Your task to perform on an android device: check out phone information Image 0: 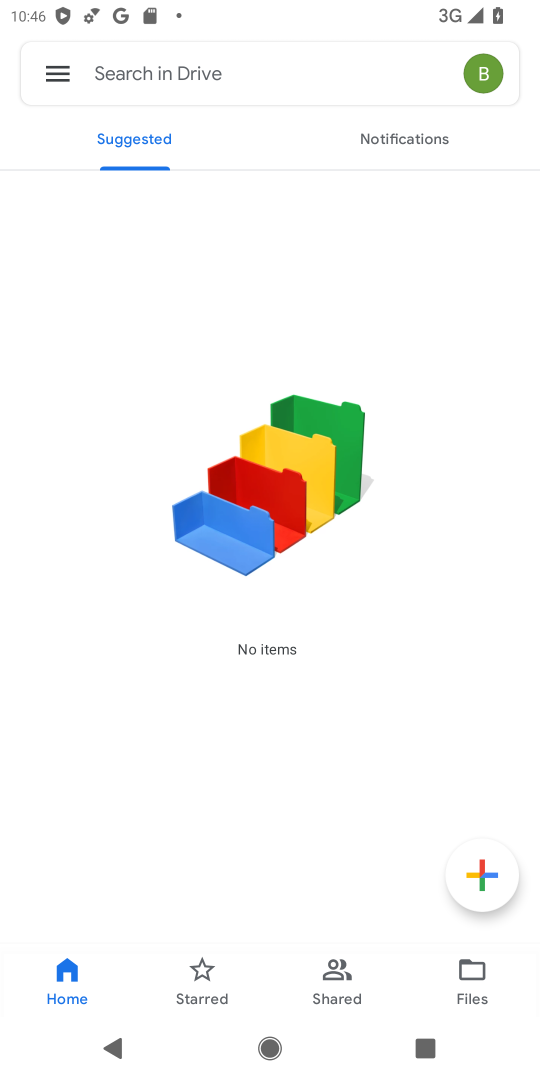
Step 0: press home button
Your task to perform on an android device: check out phone information Image 1: 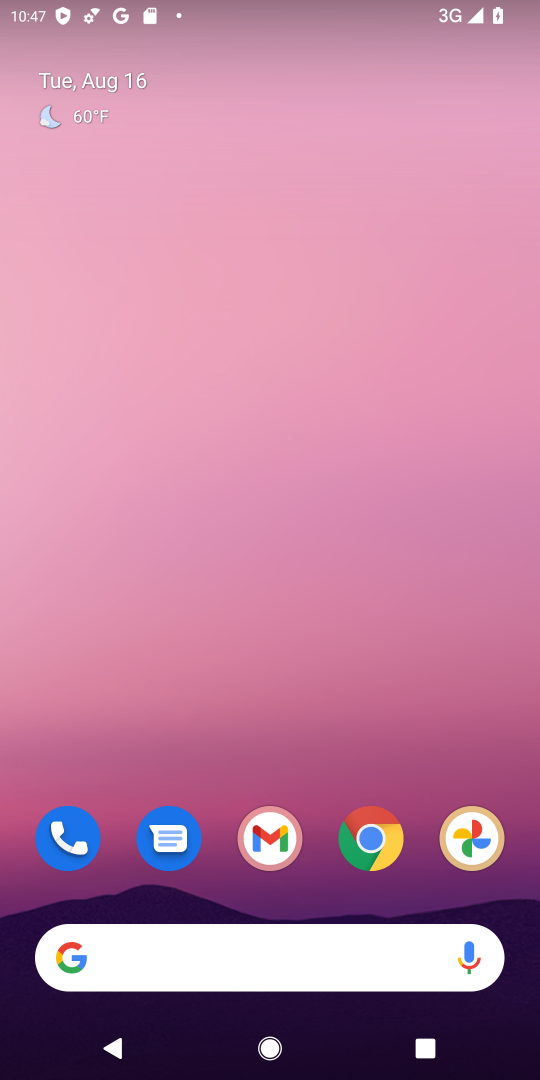
Step 1: drag from (317, 697) to (280, 215)
Your task to perform on an android device: check out phone information Image 2: 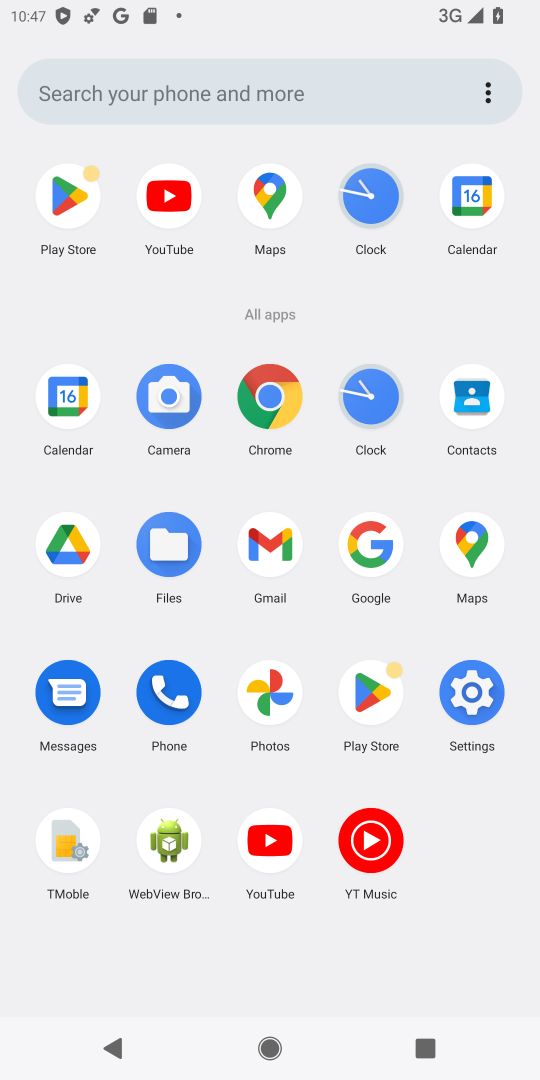
Step 2: click (490, 695)
Your task to perform on an android device: check out phone information Image 3: 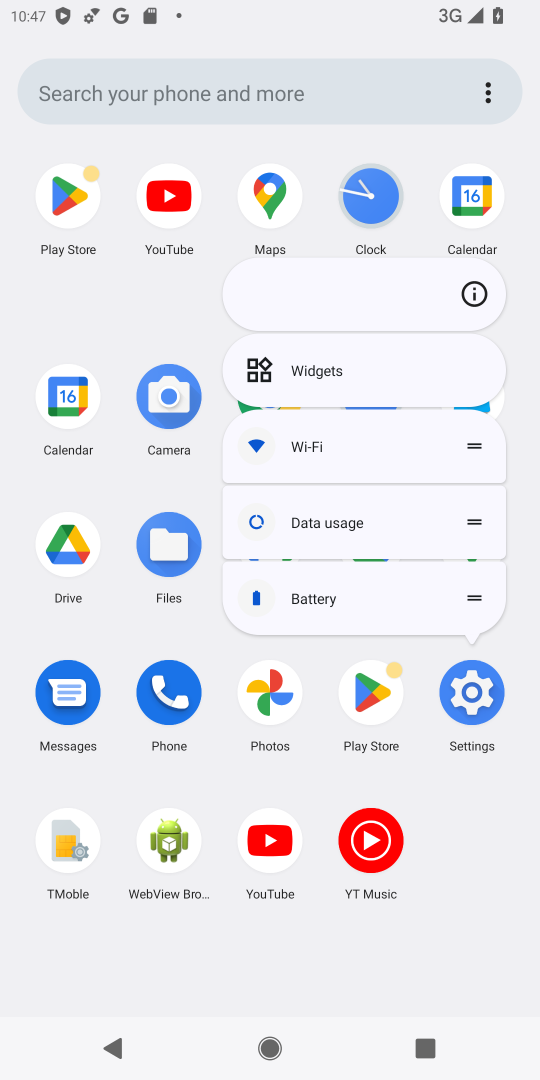
Step 3: click (490, 695)
Your task to perform on an android device: check out phone information Image 4: 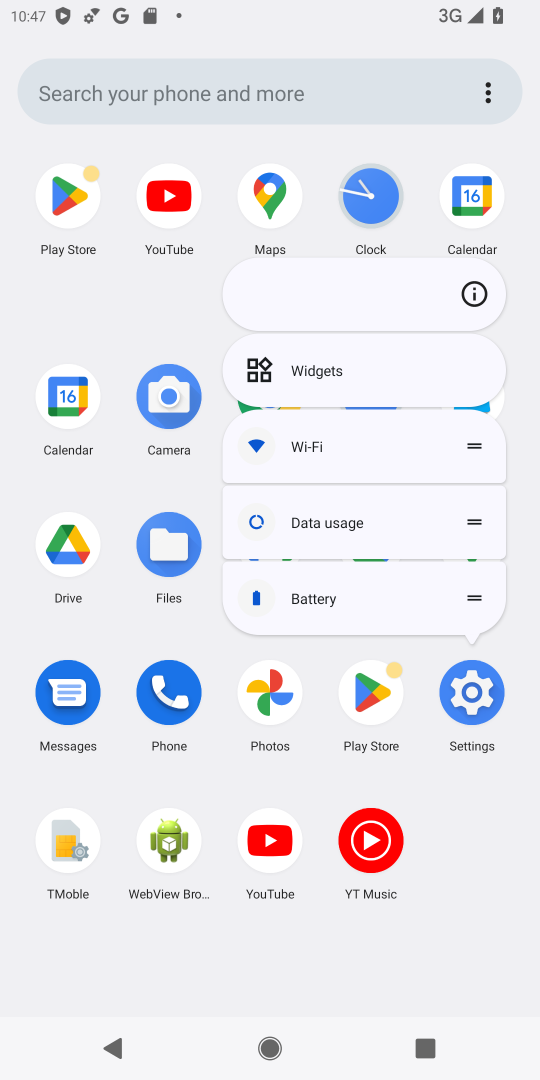
Step 4: click (490, 695)
Your task to perform on an android device: check out phone information Image 5: 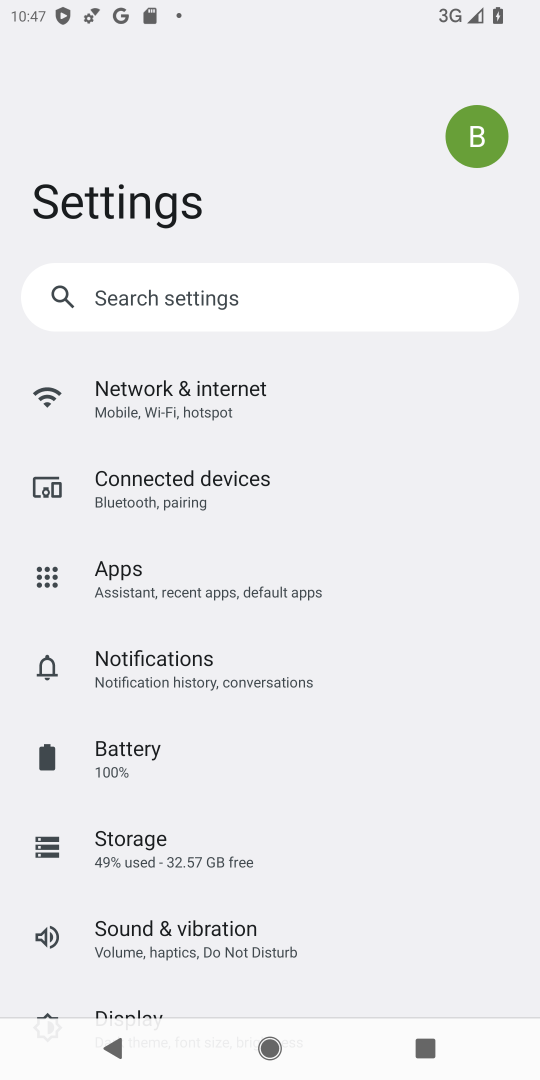
Step 5: drag from (438, 899) to (367, 73)
Your task to perform on an android device: check out phone information Image 6: 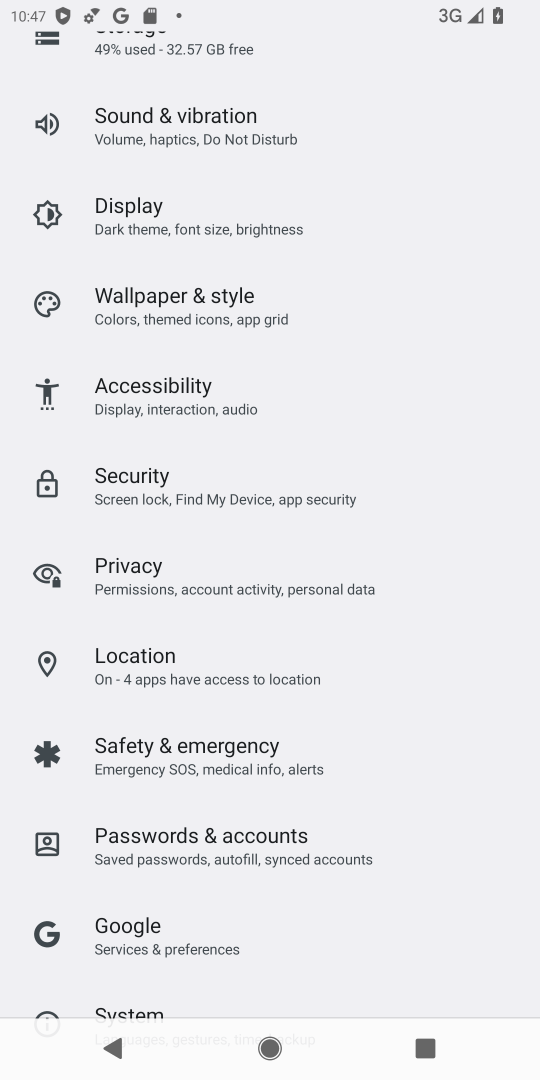
Step 6: drag from (415, 919) to (334, 210)
Your task to perform on an android device: check out phone information Image 7: 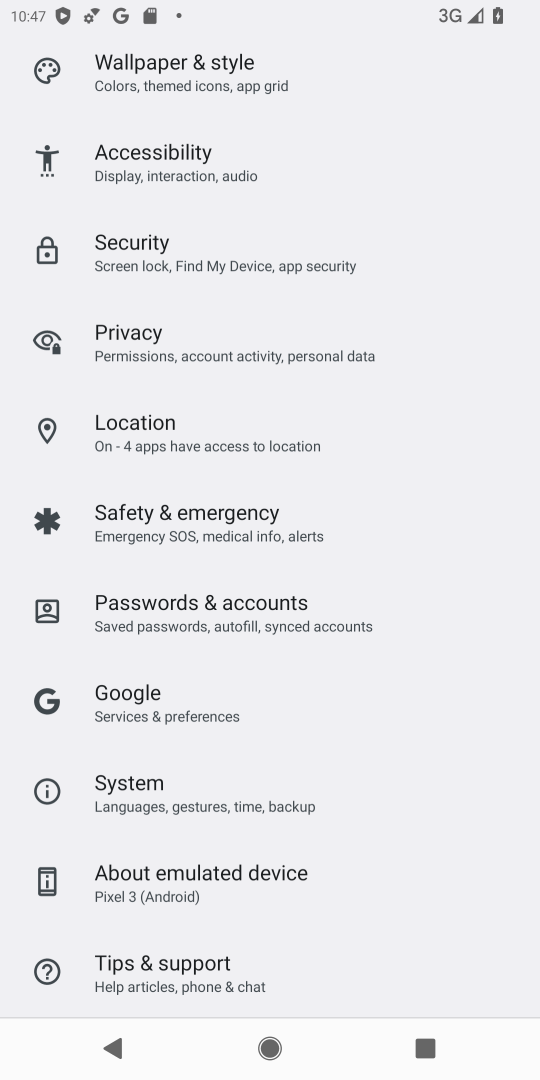
Step 7: click (196, 890)
Your task to perform on an android device: check out phone information Image 8: 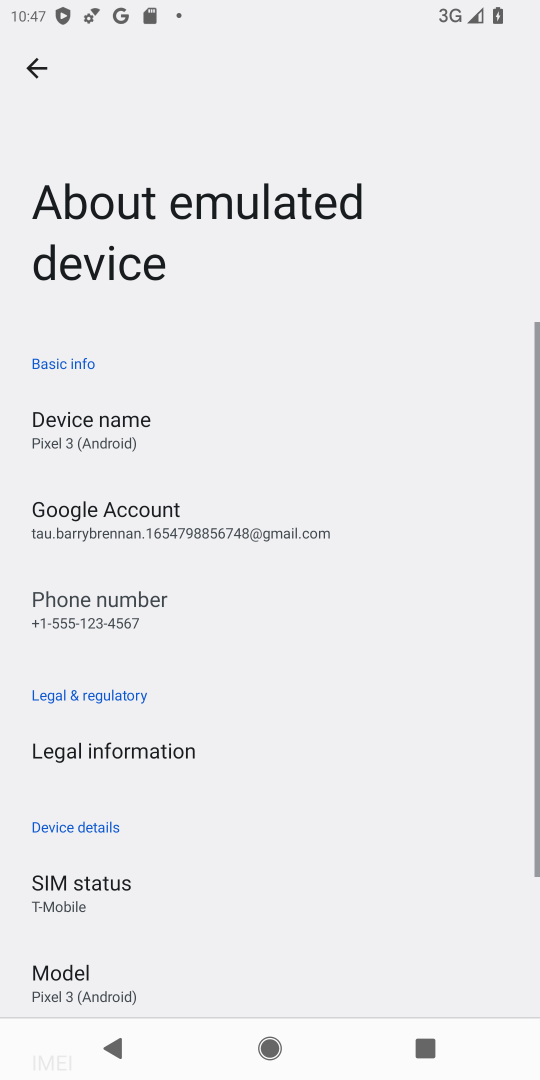
Step 8: task complete